Your task to perform on an android device: open app "Flipkart Online Shopping App" Image 0: 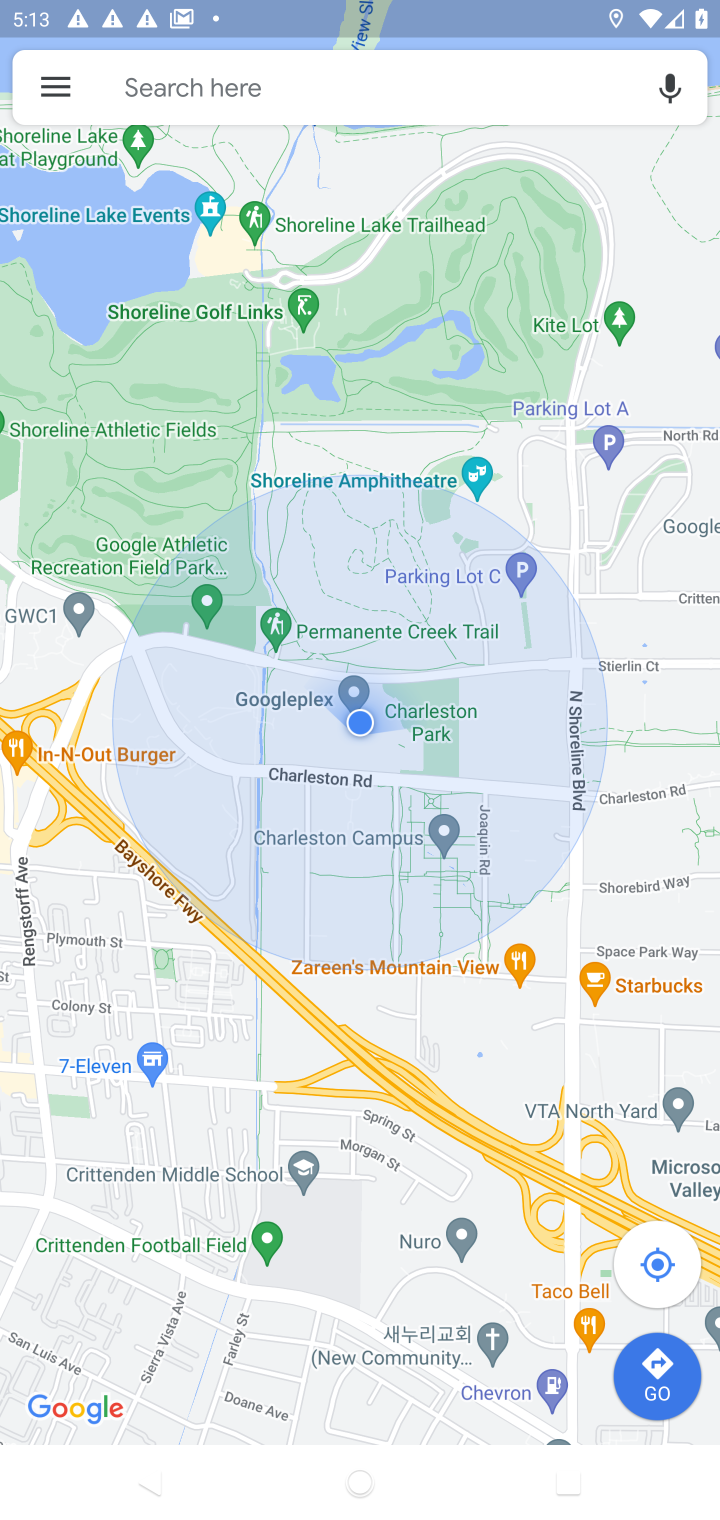
Step 0: press home button
Your task to perform on an android device: open app "Flipkart Online Shopping App" Image 1: 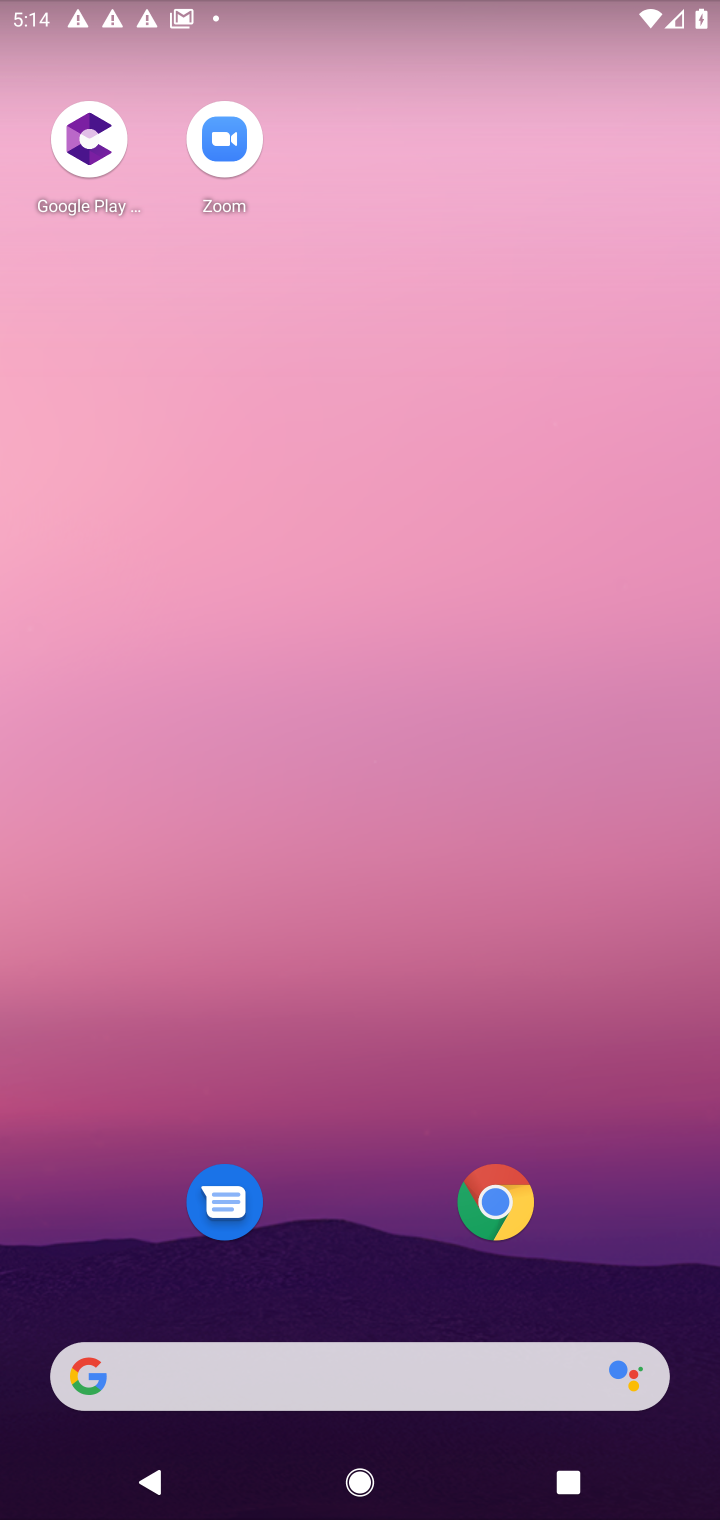
Step 1: drag from (364, 1392) to (327, 223)
Your task to perform on an android device: open app "Flipkart Online Shopping App" Image 2: 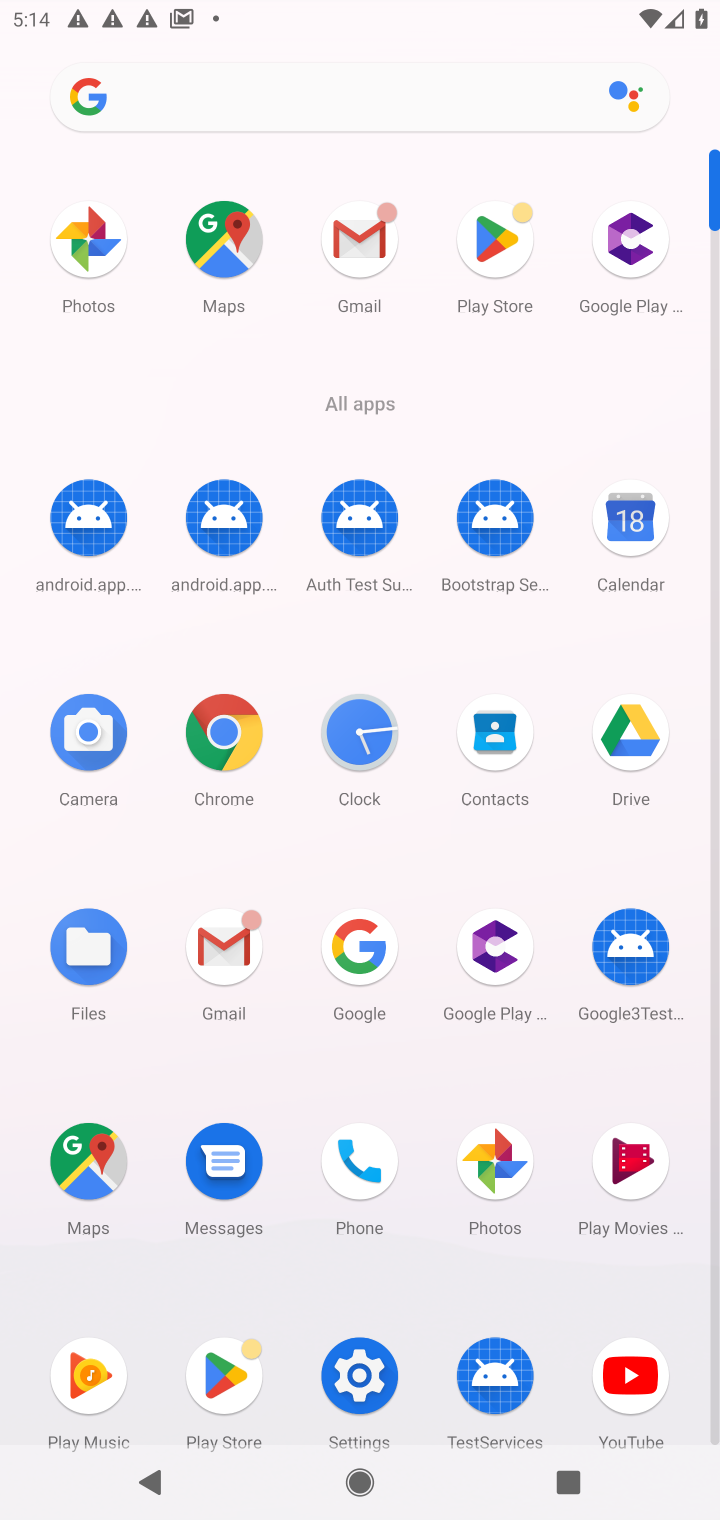
Step 2: click (480, 265)
Your task to perform on an android device: open app "Flipkart Online Shopping App" Image 3: 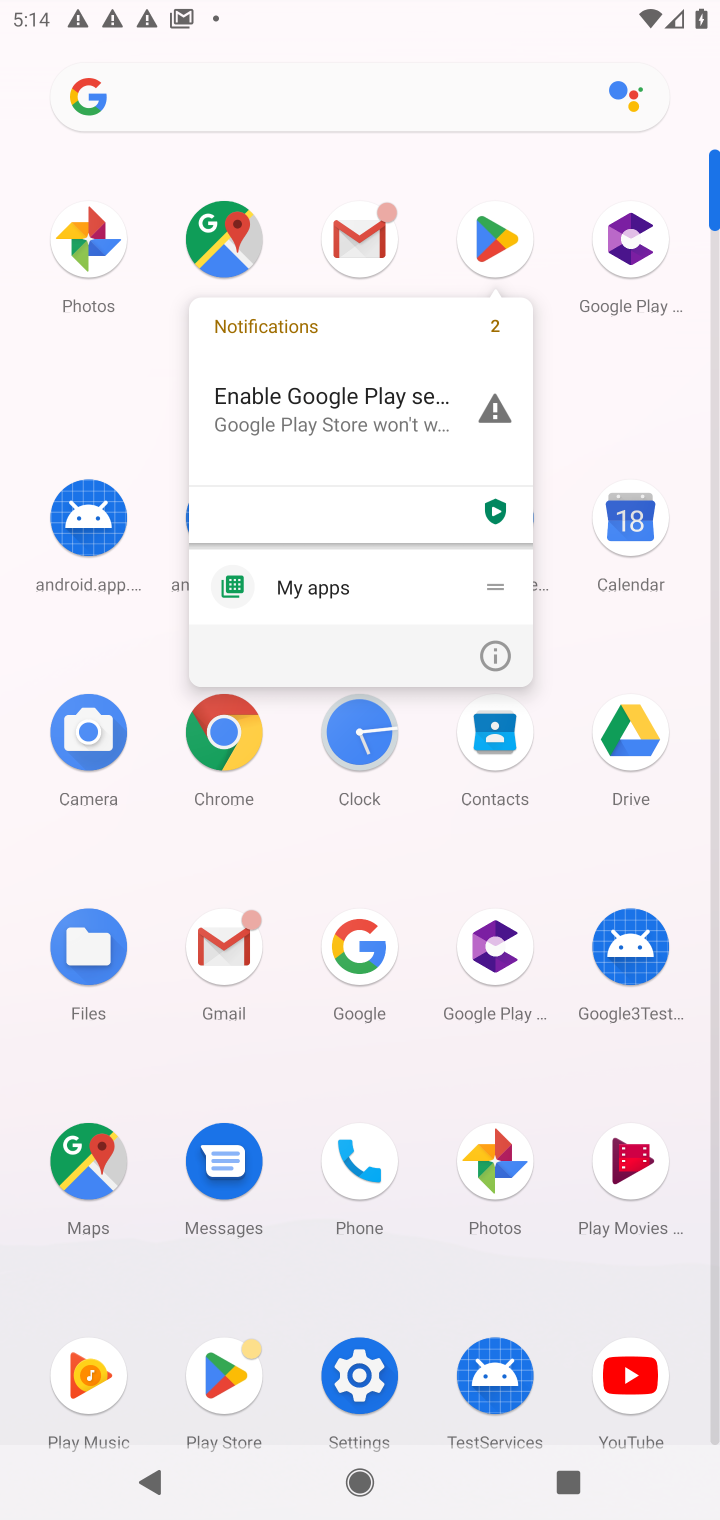
Step 3: click (486, 235)
Your task to perform on an android device: open app "Flipkart Online Shopping App" Image 4: 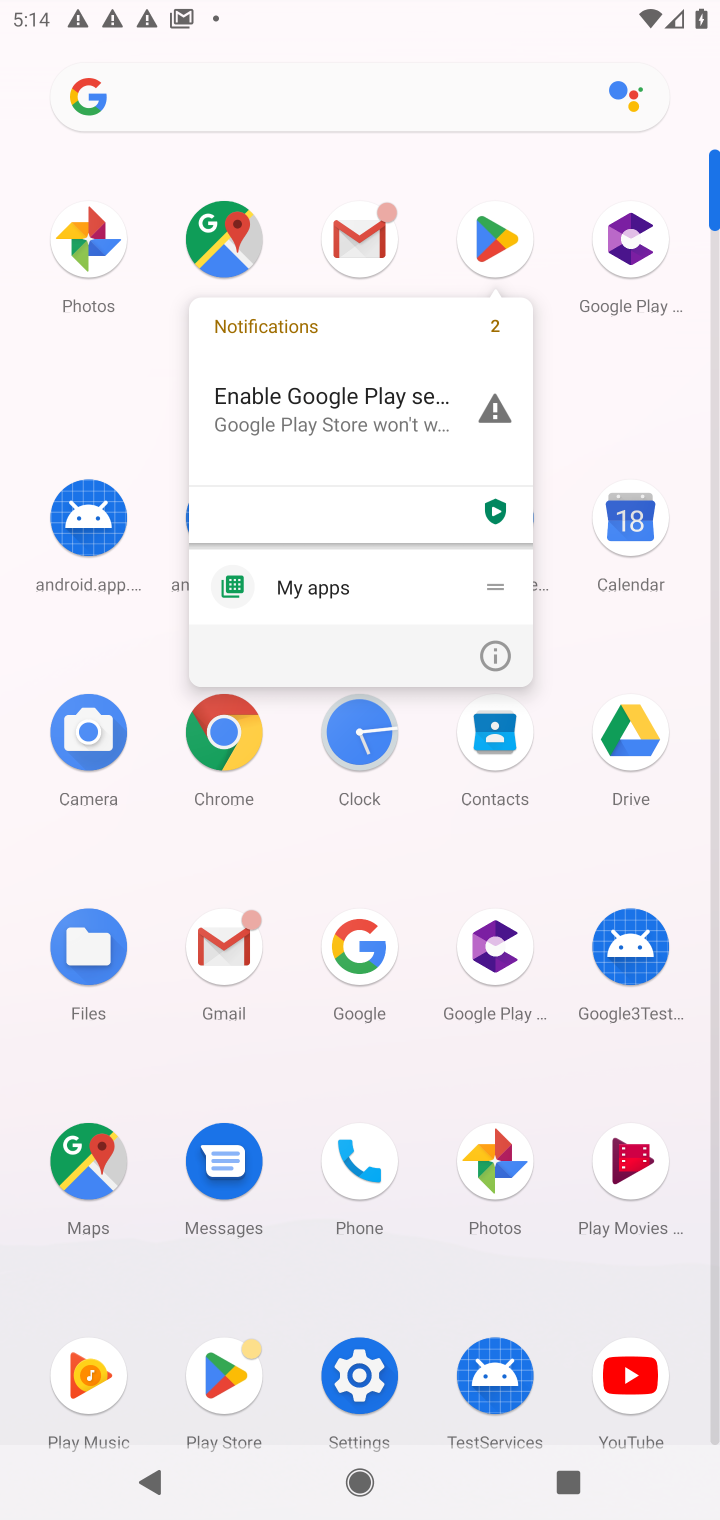
Step 4: click (502, 271)
Your task to perform on an android device: open app "Flipkart Online Shopping App" Image 5: 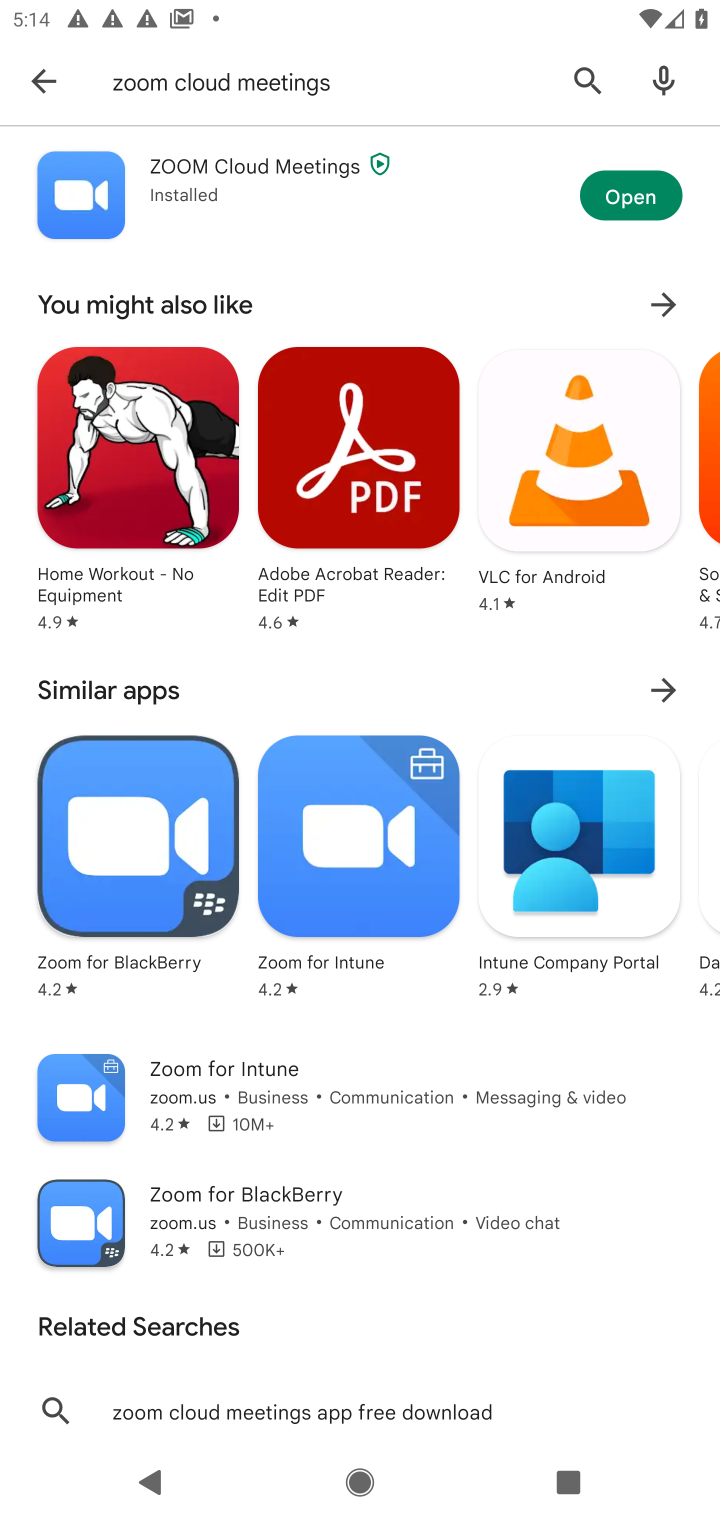
Step 5: click (585, 95)
Your task to perform on an android device: open app "Flipkart Online Shopping App" Image 6: 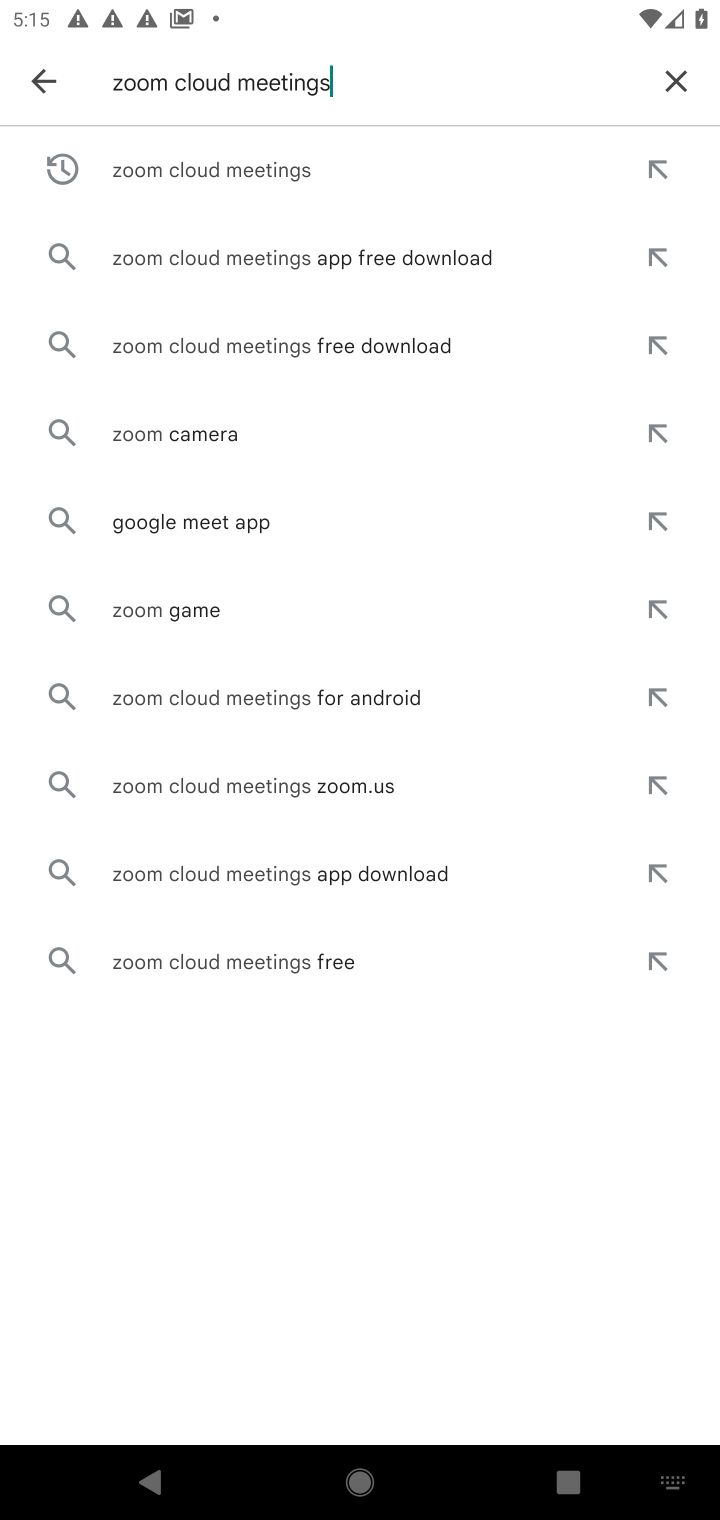
Step 6: click (674, 75)
Your task to perform on an android device: open app "Flipkart Online Shopping App" Image 7: 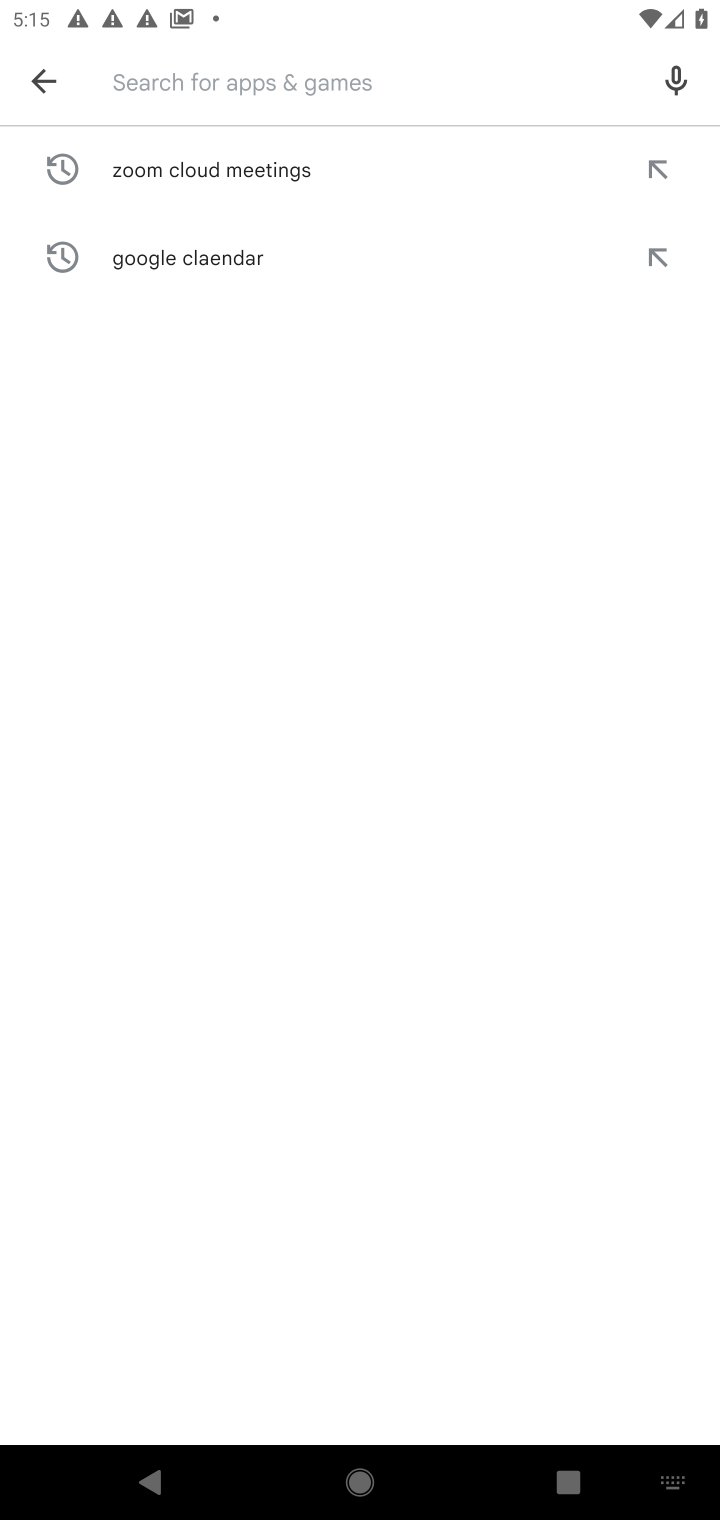
Step 7: type "flipkart"
Your task to perform on an android device: open app "Flipkart Online Shopping App" Image 8: 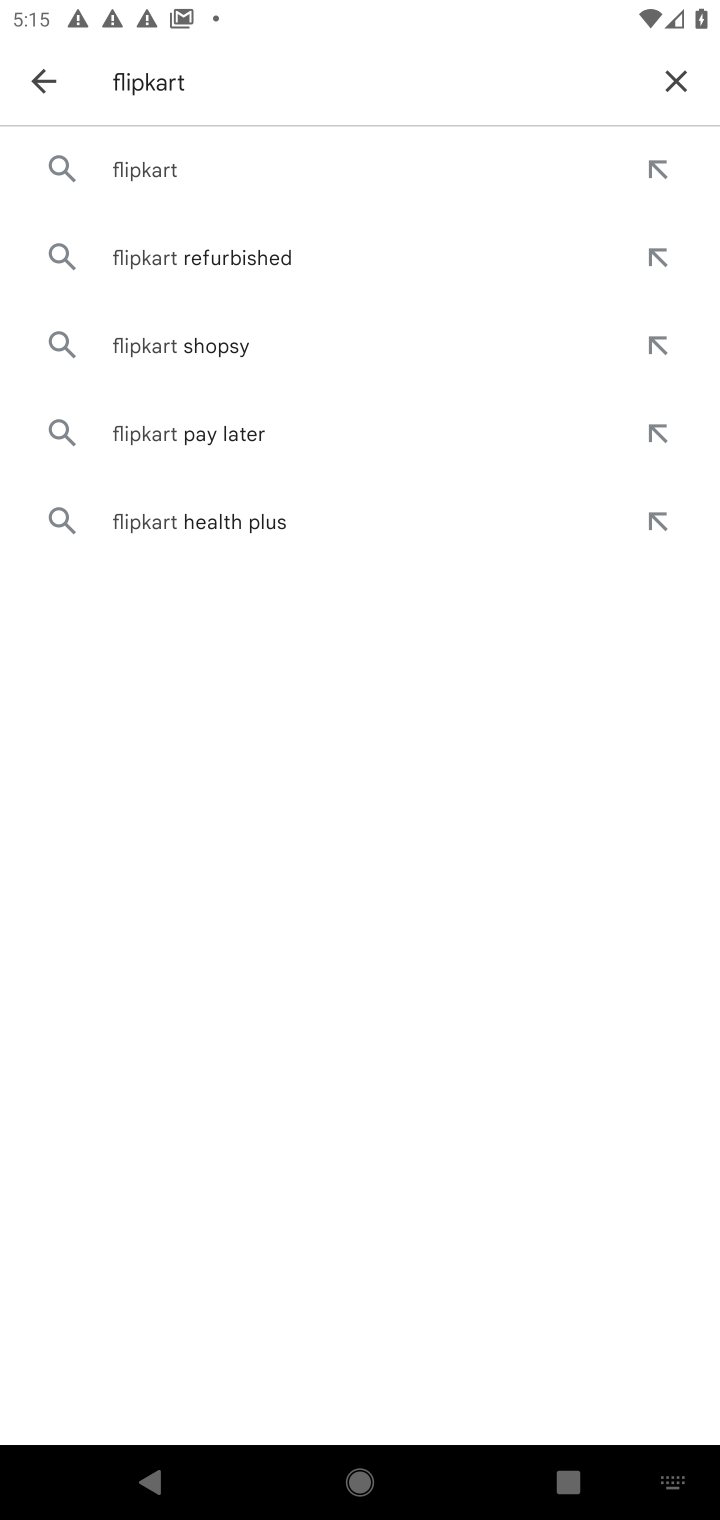
Step 8: click (169, 168)
Your task to perform on an android device: open app "Flipkart Online Shopping App" Image 9: 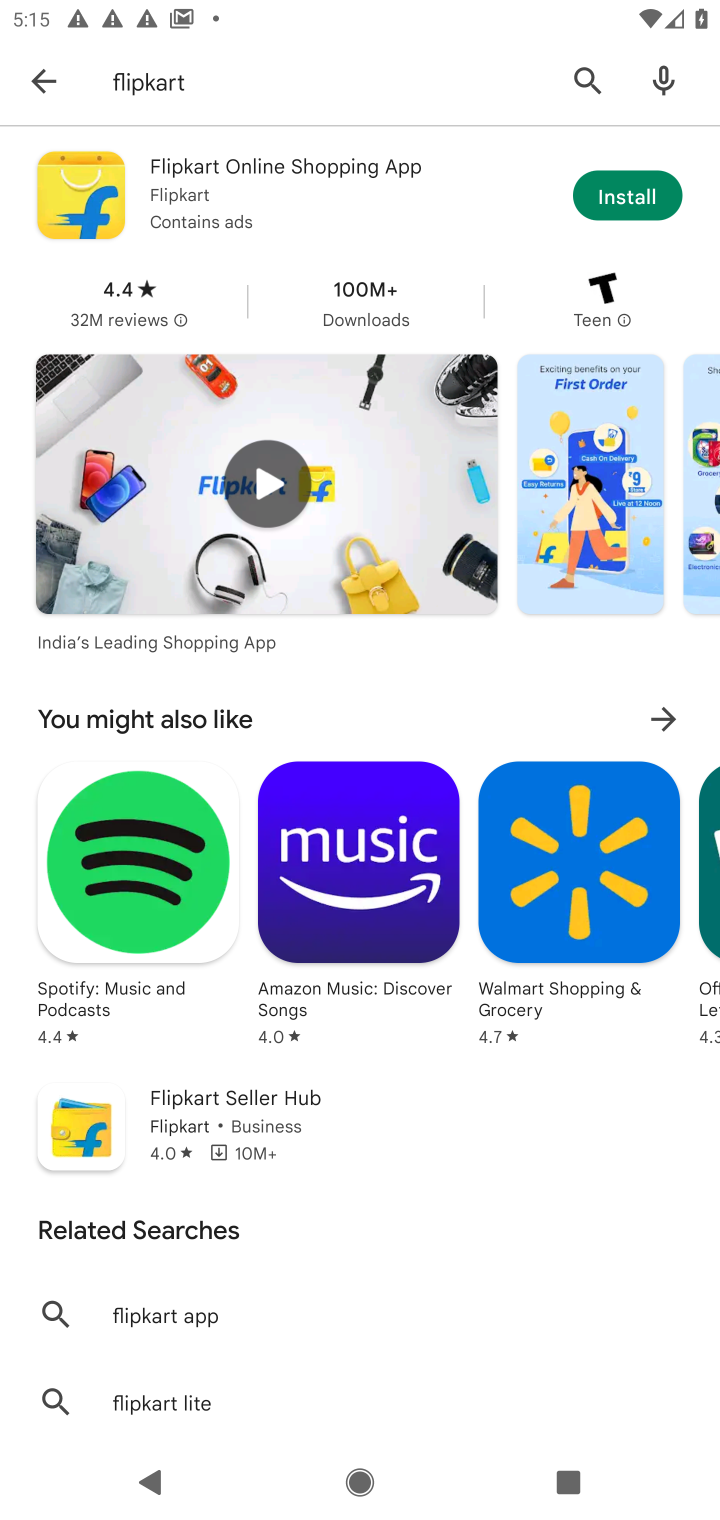
Step 9: task complete